Your task to perform on an android device: read, delete, or share a saved page in the chrome app Image 0: 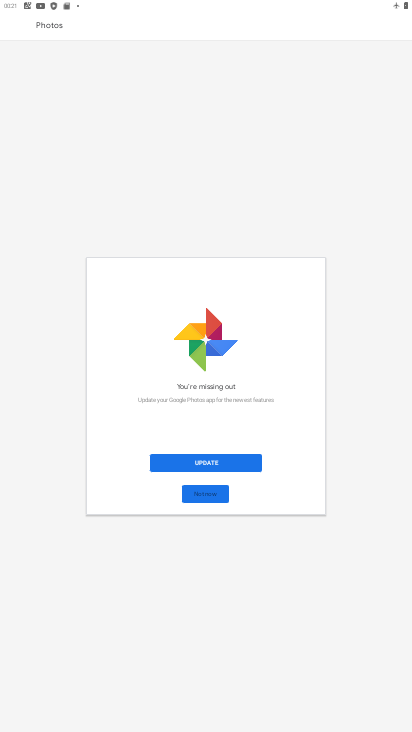
Step 0: press home button
Your task to perform on an android device: read, delete, or share a saved page in the chrome app Image 1: 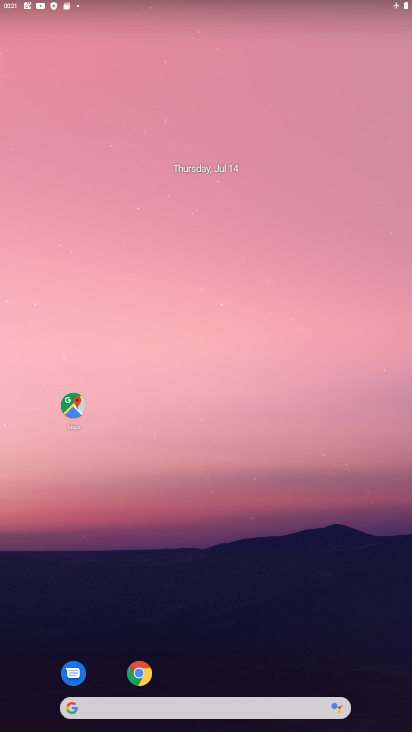
Step 1: click (146, 663)
Your task to perform on an android device: read, delete, or share a saved page in the chrome app Image 2: 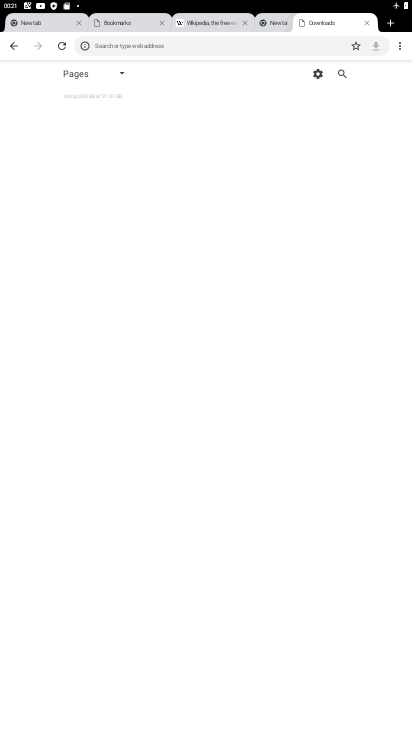
Step 2: click (401, 50)
Your task to perform on an android device: read, delete, or share a saved page in the chrome app Image 3: 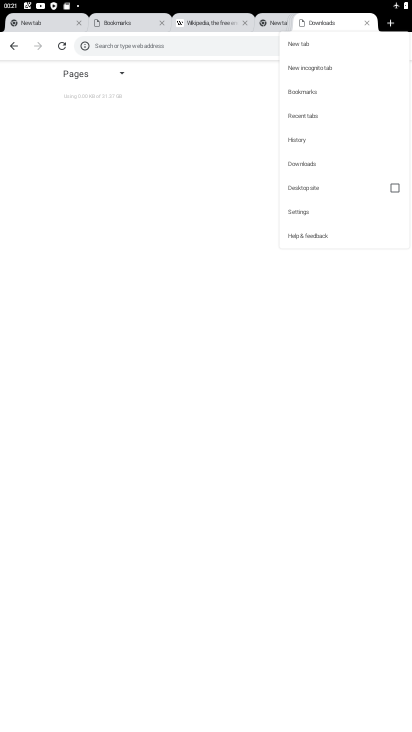
Step 3: click (314, 168)
Your task to perform on an android device: read, delete, or share a saved page in the chrome app Image 4: 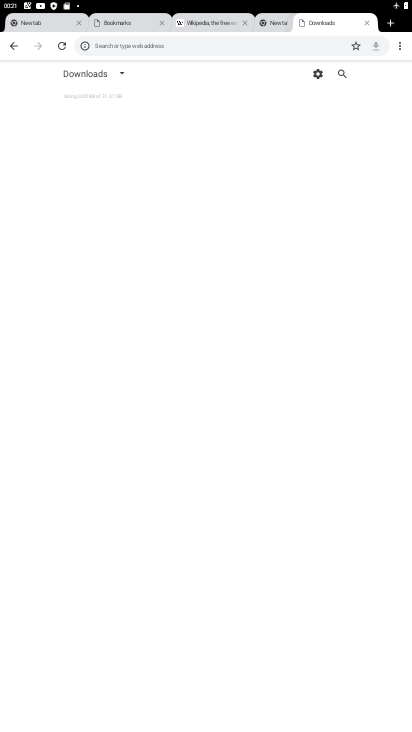
Step 4: click (122, 73)
Your task to perform on an android device: read, delete, or share a saved page in the chrome app Image 5: 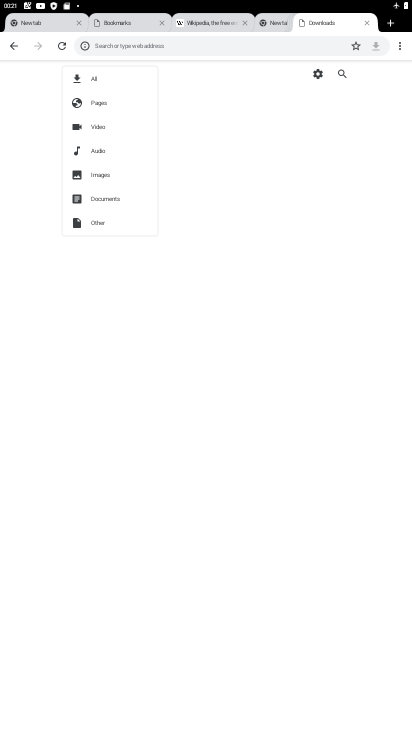
Step 5: click (99, 102)
Your task to perform on an android device: read, delete, or share a saved page in the chrome app Image 6: 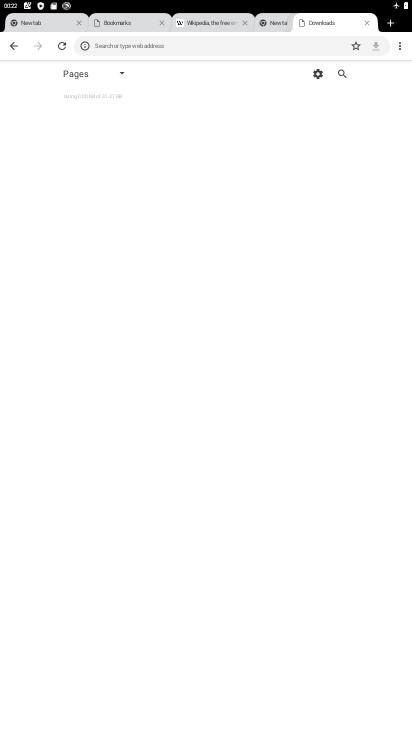
Step 6: task complete